Your task to perform on an android device: stop showing notifications on the lock screen Image 0: 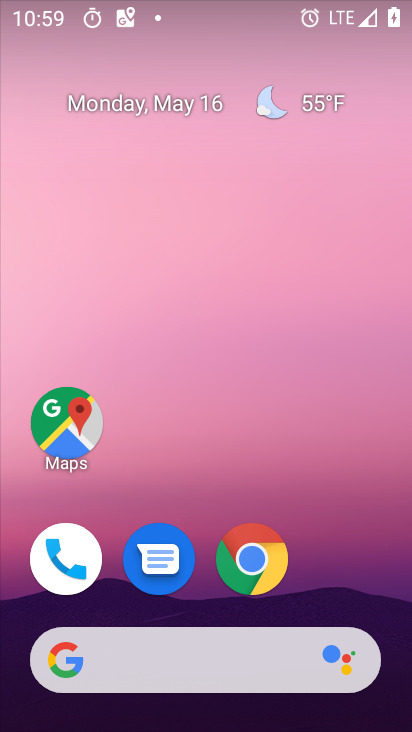
Step 0: drag from (337, 516) to (273, 3)
Your task to perform on an android device: stop showing notifications on the lock screen Image 1: 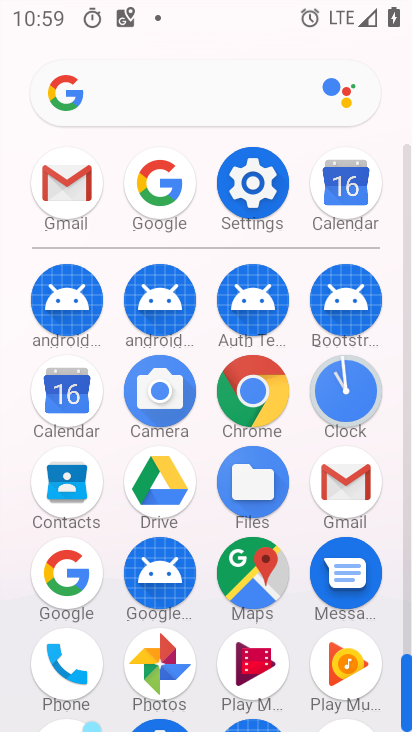
Step 1: click (257, 182)
Your task to perform on an android device: stop showing notifications on the lock screen Image 2: 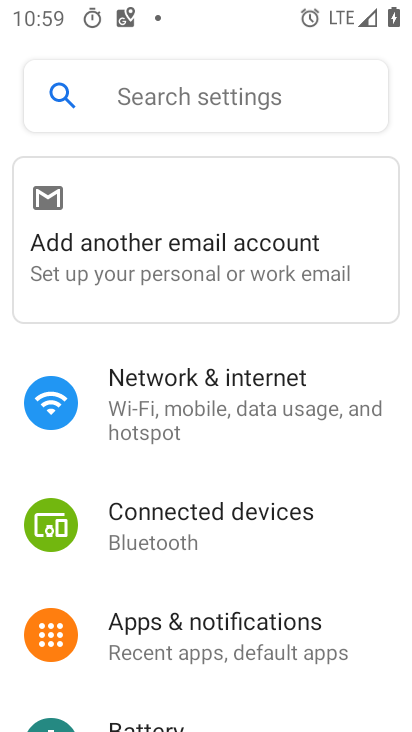
Step 2: drag from (269, 549) to (299, 33)
Your task to perform on an android device: stop showing notifications on the lock screen Image 3: 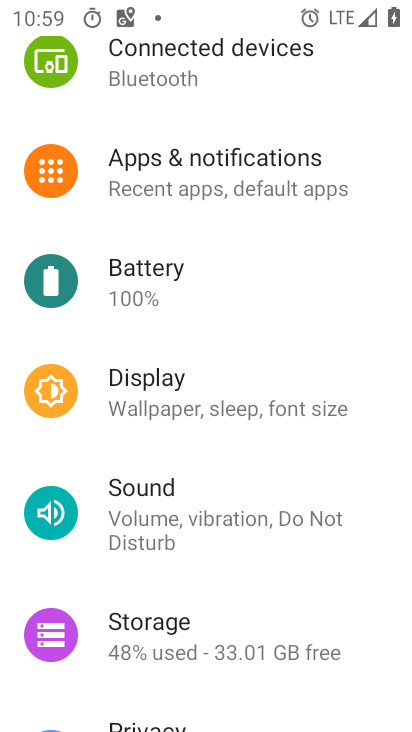
Step 3: click (260, 190)
Your task to perform on an android device: stop showing notifications on the lock screen Image 4: 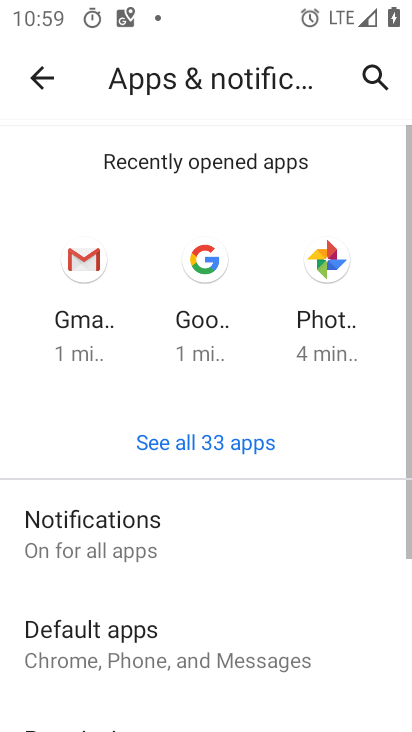
Step 4: click (81, 521)
Your task to perform on an android device: stop showing notifications on the lock screen Image 5: 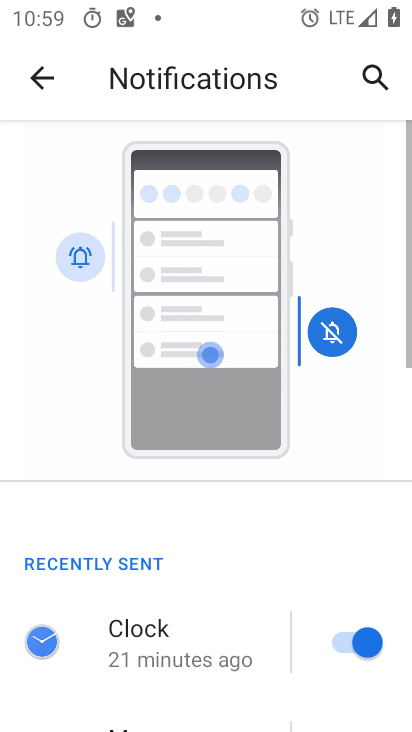
Step 5: drag from (145, 547) to (301, 5)
Your task to perform on an android device: stop showing notifications on the lock screen Image 6: 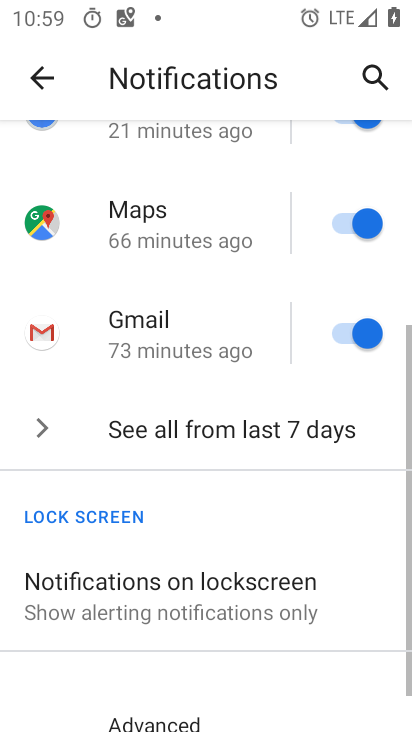
Step 6: drag from (183, 617) to (221, 230)
Your task to perform on an android device: stop showing notifications on the lock screen Image 7: 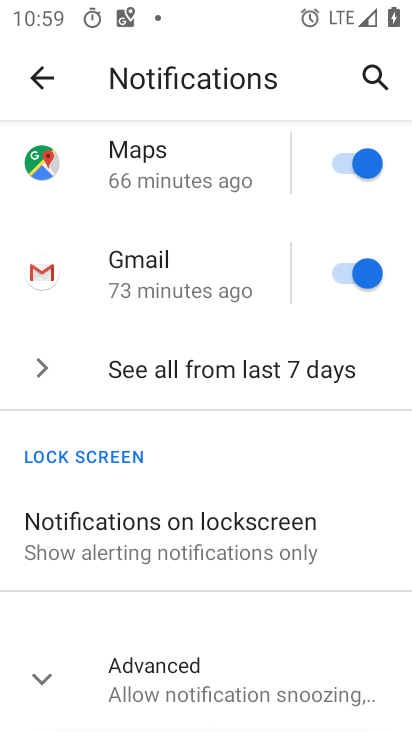
Step 7: click (158, 532)
Your task to perform on an android device: stop showing notifications on the lock screen Image 8: 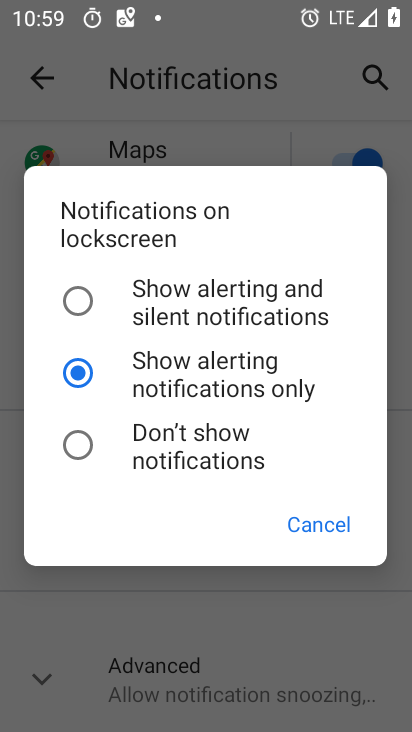
Step 8: click (146, 419)
Your task to perform on an android device: stop showing notifications on the lock screen Image 9: 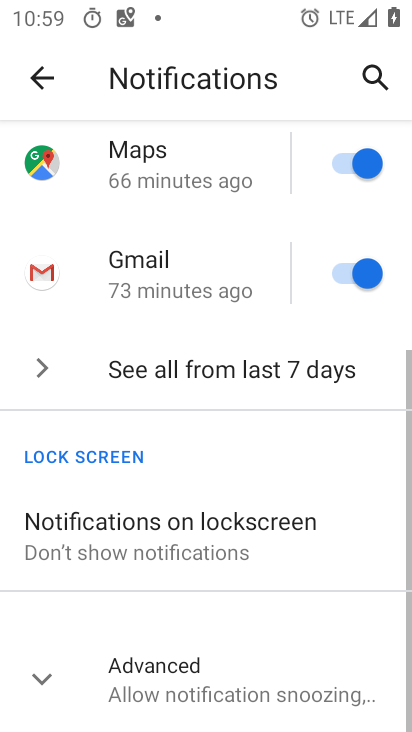
Step 9: task complete